Your task to perform on an android device: change text size in settings app Image 0: 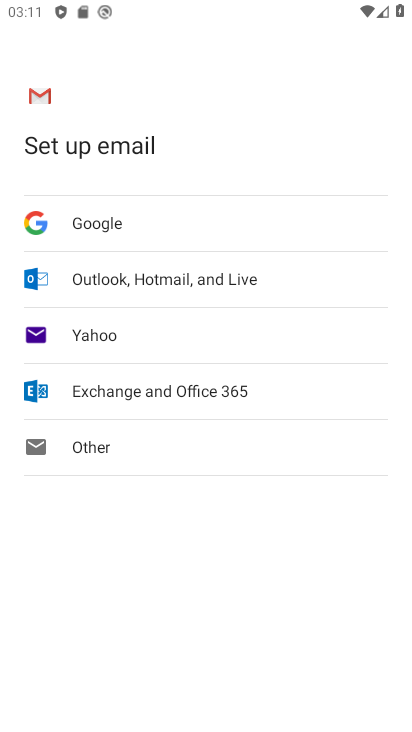
Step 0: press home button
Your task to perform on an android device: change text size in settings app Image 1: 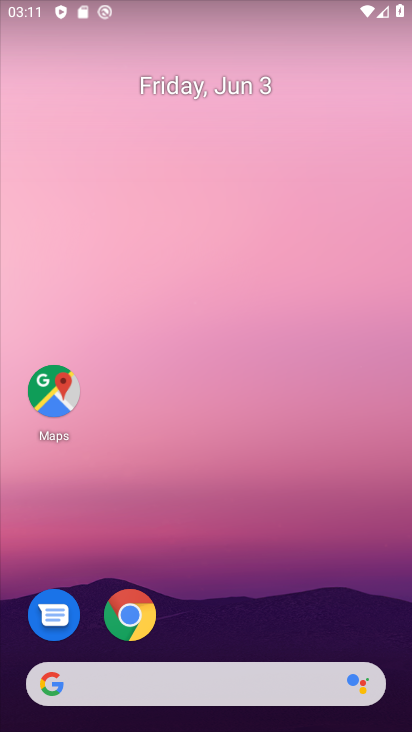
Step 1: drag from (249, 642) to (143, 174)
Your task to perform on an android device: change text size in settings app Image 2: 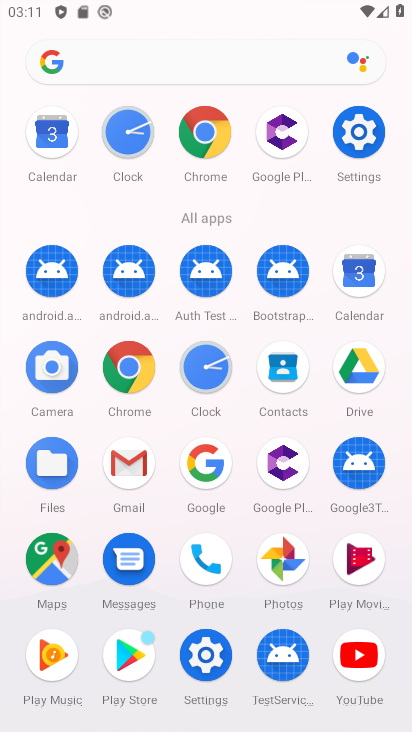
Step 2: click (368, 134)
Your task to perform on an android device: change text size in settings app Image 3: 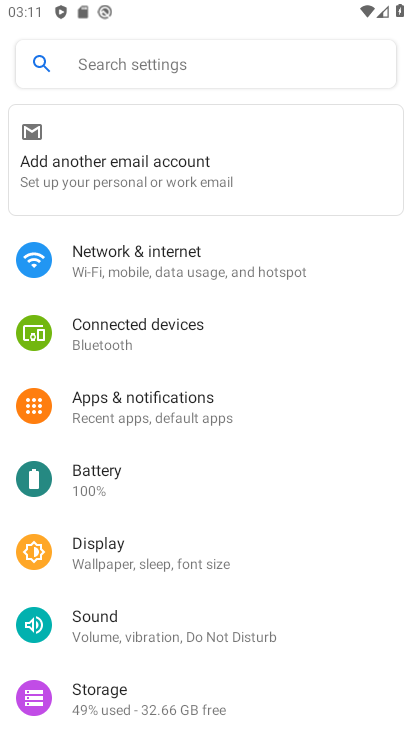
Step 3: click (208, 562)
Your task to perform on an android device: change text size in settings app Image 4: 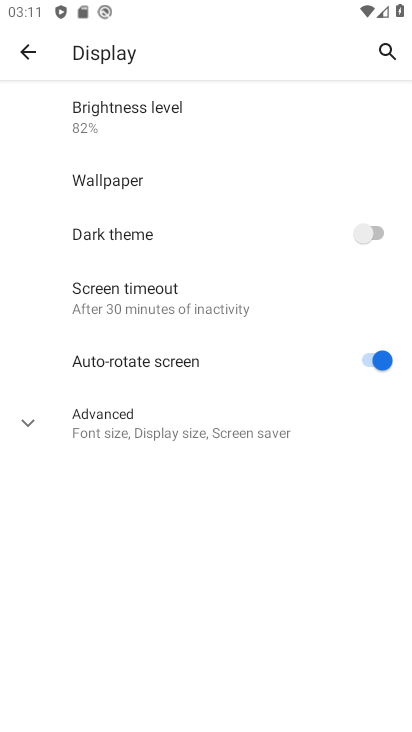
Step 4: click (212, 437)
Your task to perform on an android device: change text size in settings app Image 5: 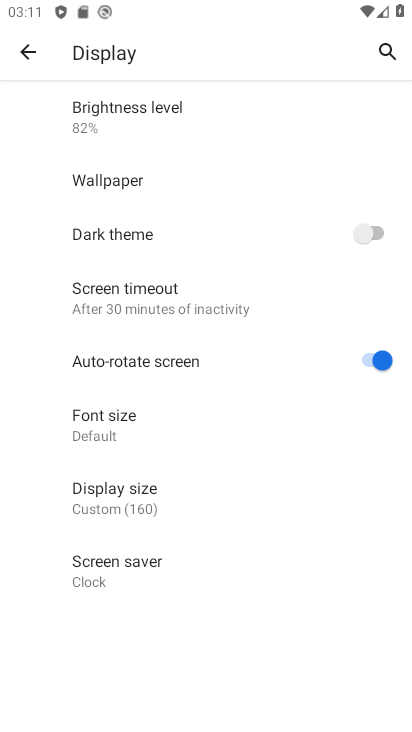
Step 5: click (174, 429)
Your task to perform on an android device: change text size in settings app Image 6: 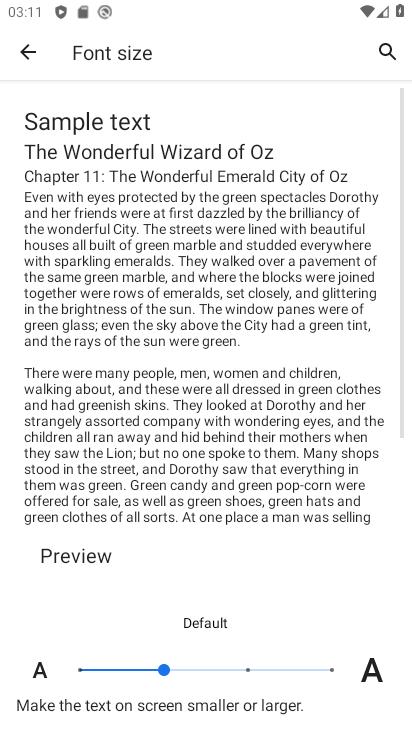
Step 6: click (241, 675)
Your task to perform on an android device: change text size in settings app Image 7: 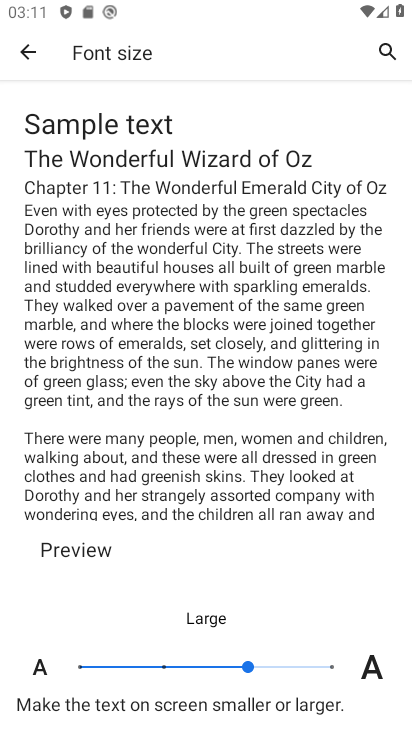
Step 7: task complete